Your task to perform on an android device: search for starred emails in the gmail app Image 0: 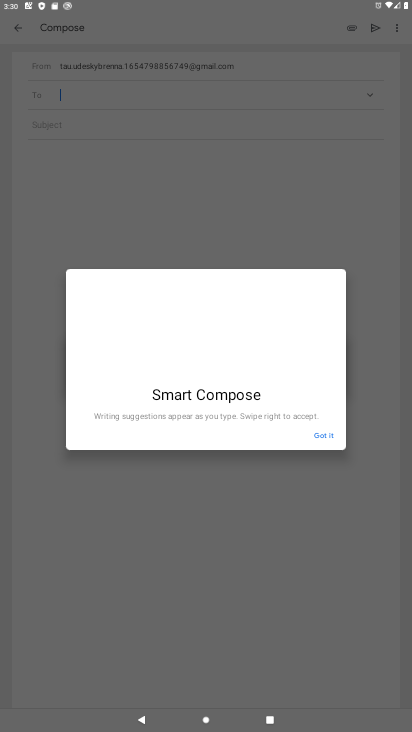
Step 0: press home button
Your task to perform on an android device: search for starred emails in the gmail app Image 1: 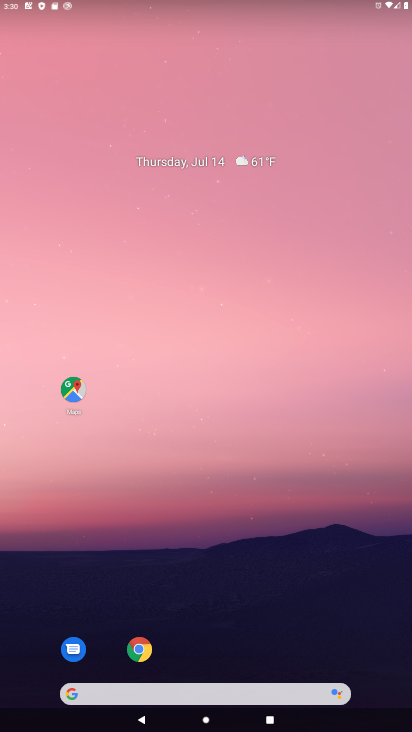
Step 1: drag from (207, 670) to (197, 168)
Your task to perform on an android device: search for starred emails in the gmail app Image 2: 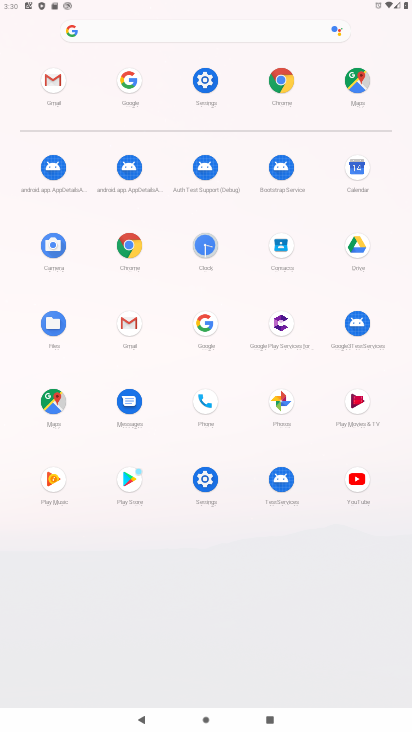
Step 2: click (127, 325)
Your task to perform on an android device: search for starred emails in the gmail app Image 3: 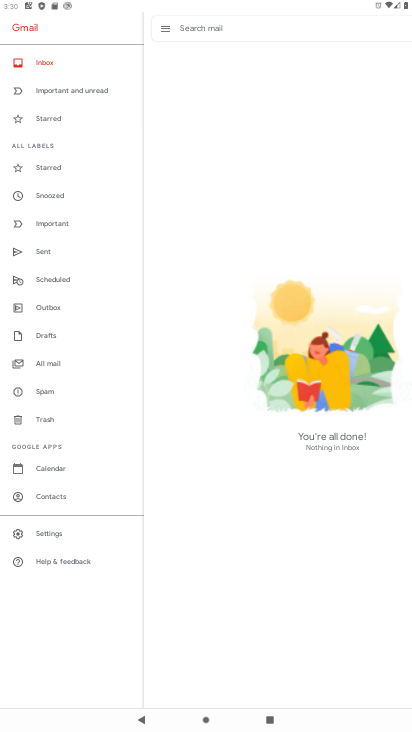
Step 3: click (56, 160)
Your task to perform on an android device: search for starred emails in the gmail app Image 4: 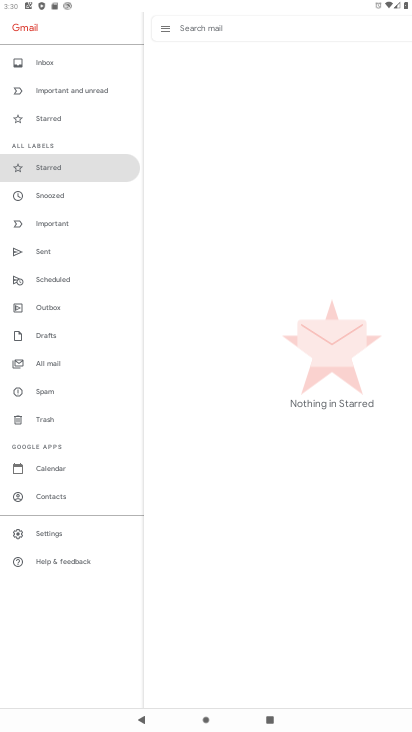
Step 4: task complete